Your task to perform on an android device: change the upload size in google photos Image 0: 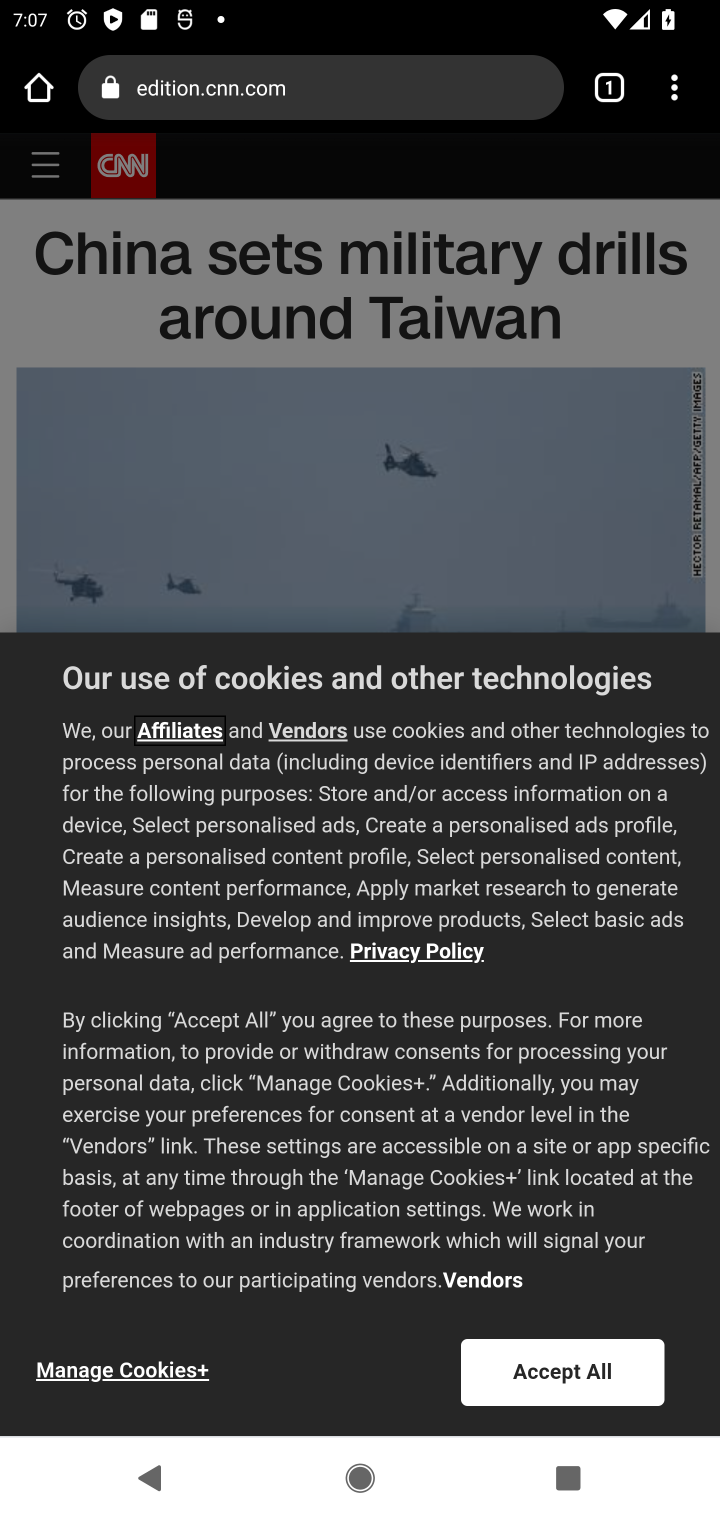
Step 0: press home button
Your task to perform on an android device: change the upload size in google photos Image 1: 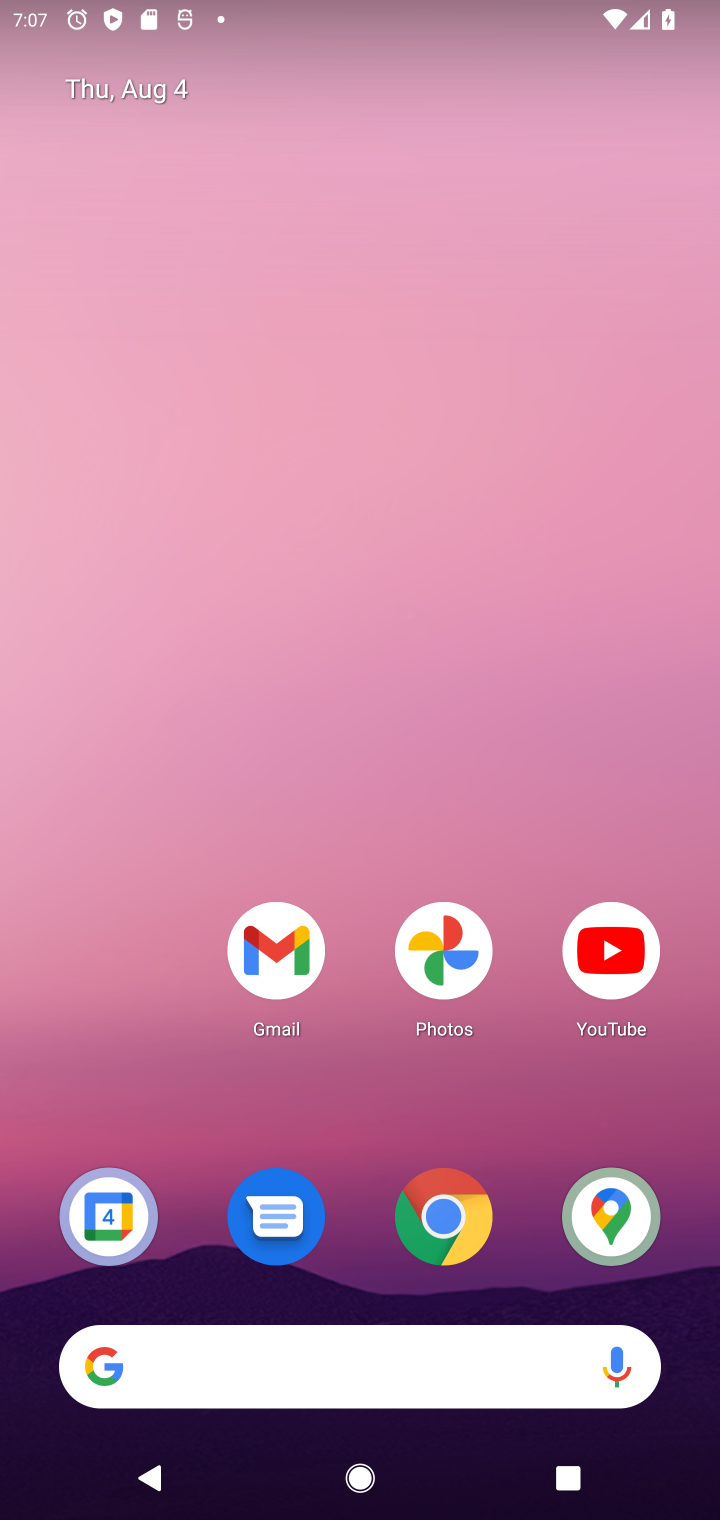
Step 1: click (448, 960)
Your task to perform on an android device: change the upload size in google photos Image 2: 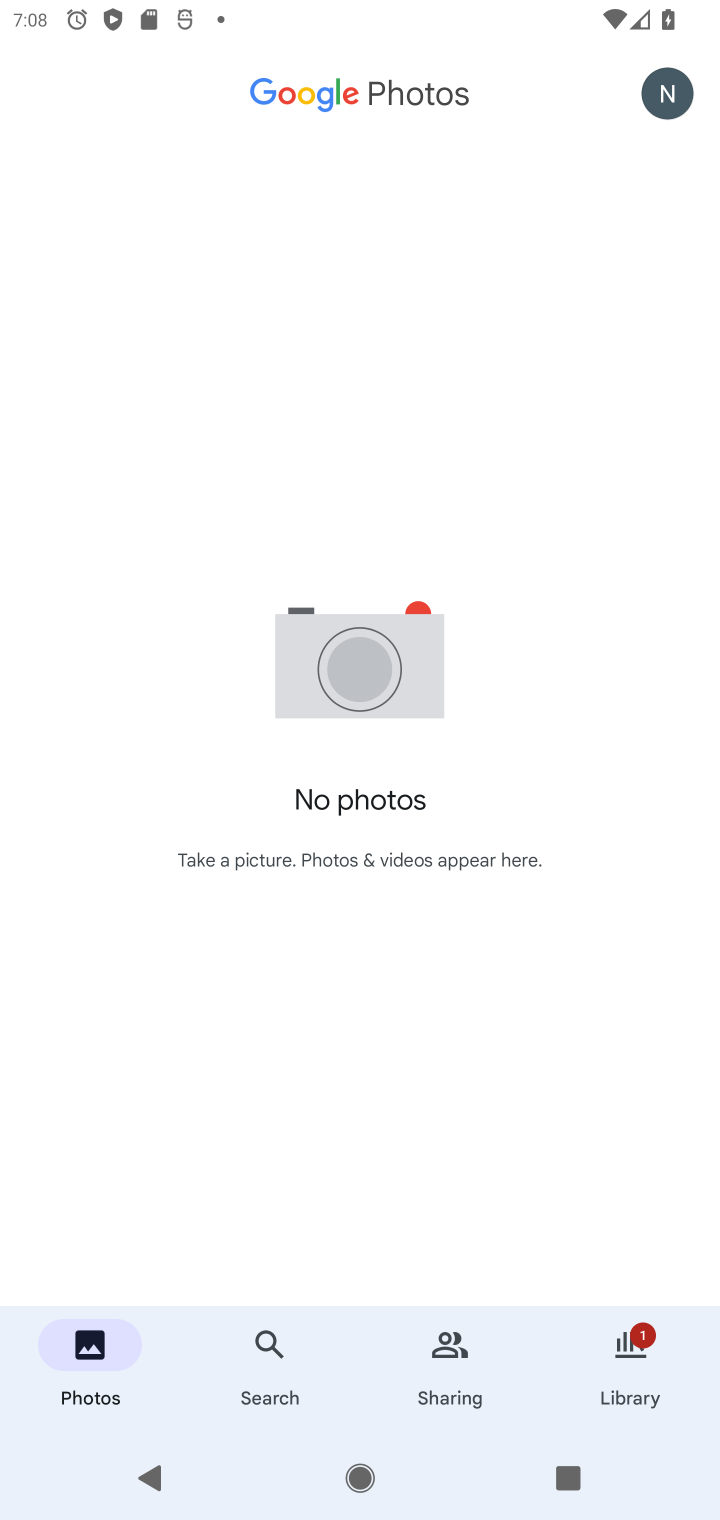
Step 2: click (663, 77)
Your task to perform on an android device: change the upload size in google photos Image 3: 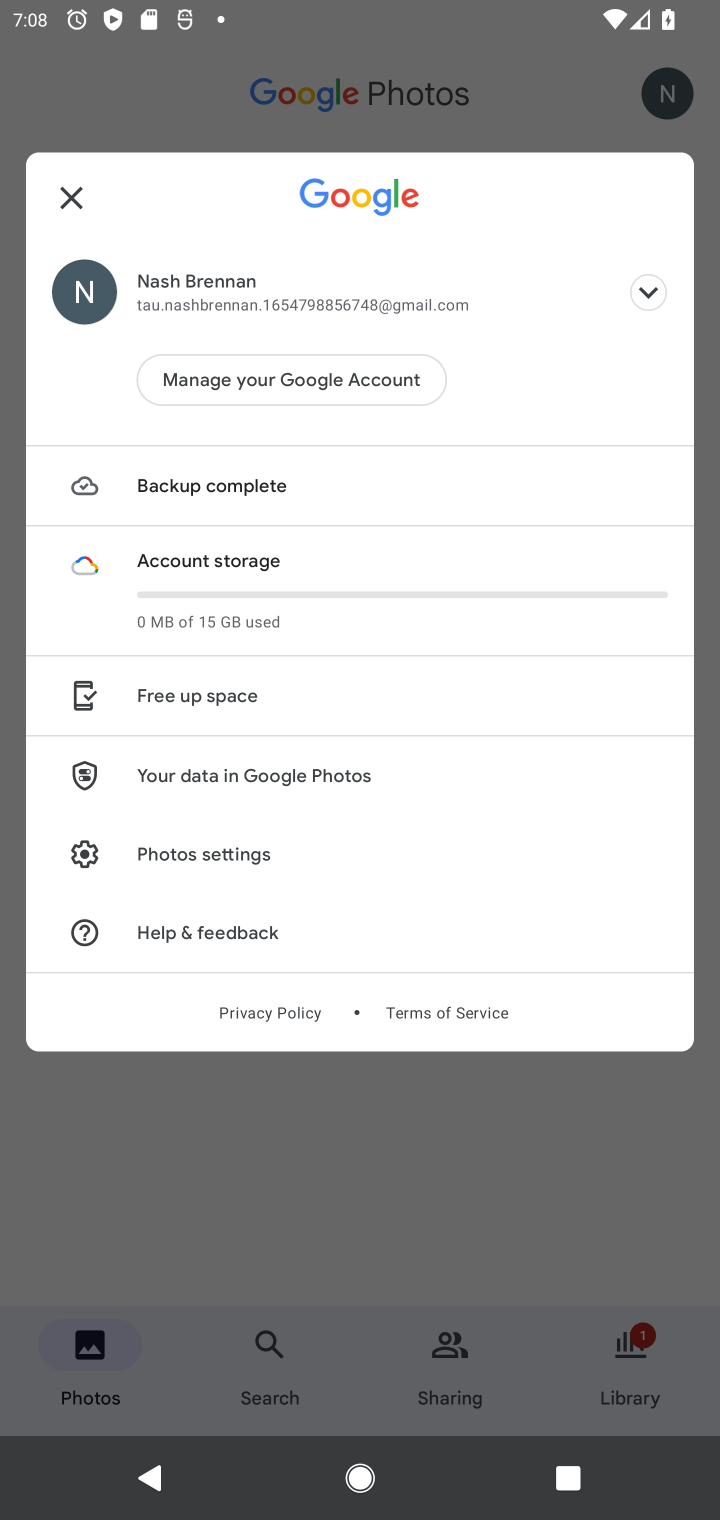
Step 3: click (278, 845)
Your task to perform on an android device: change the upload size in google photos Image 4: 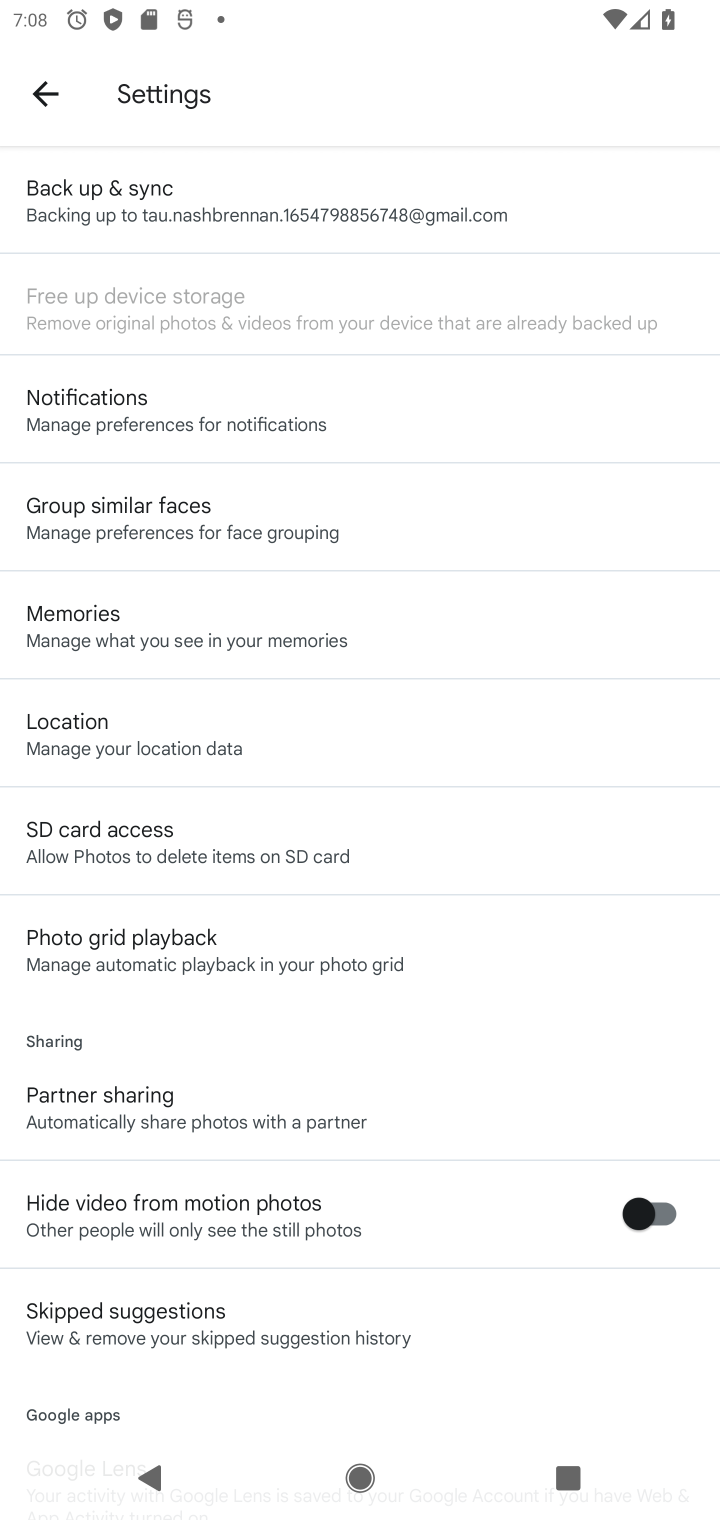
Step 4: click (141, 221)
Your task to perform on an android device: change the upload size in google photos Image 5: 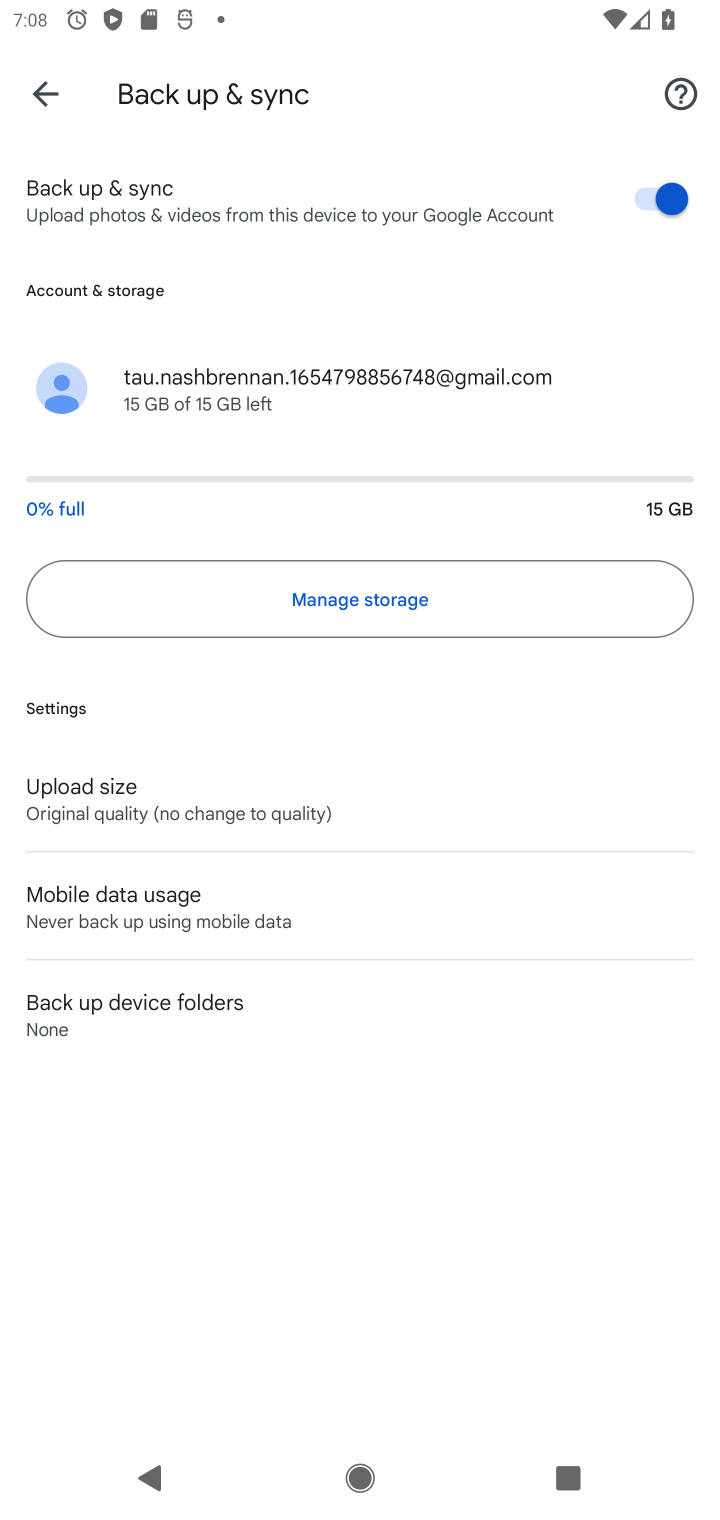
Step 5: click (337, 773)
Your task to perform on an android device: change the upload size in google photos Image 6: 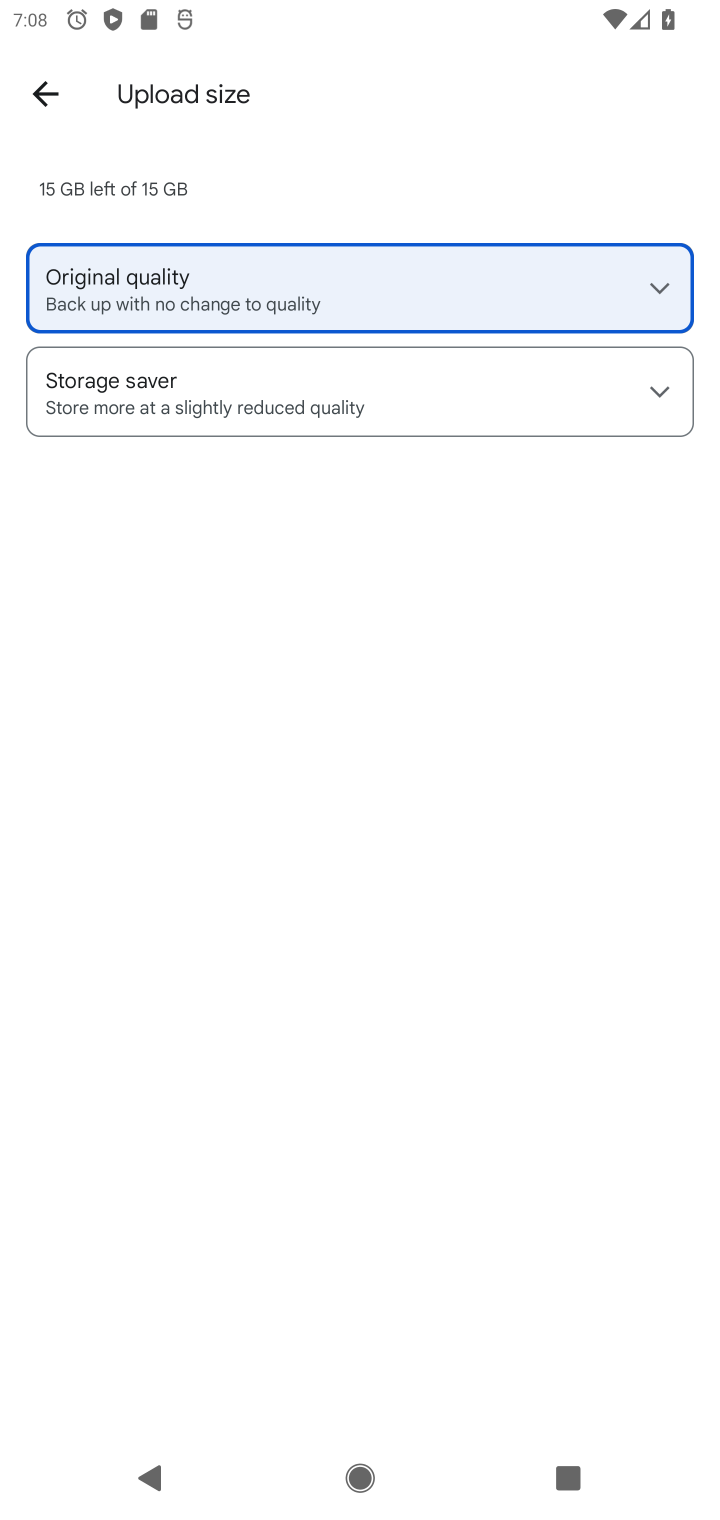
Step 6: click (440, 385)
Your task to perform on an android device: change the upload size in google photos Image 7: 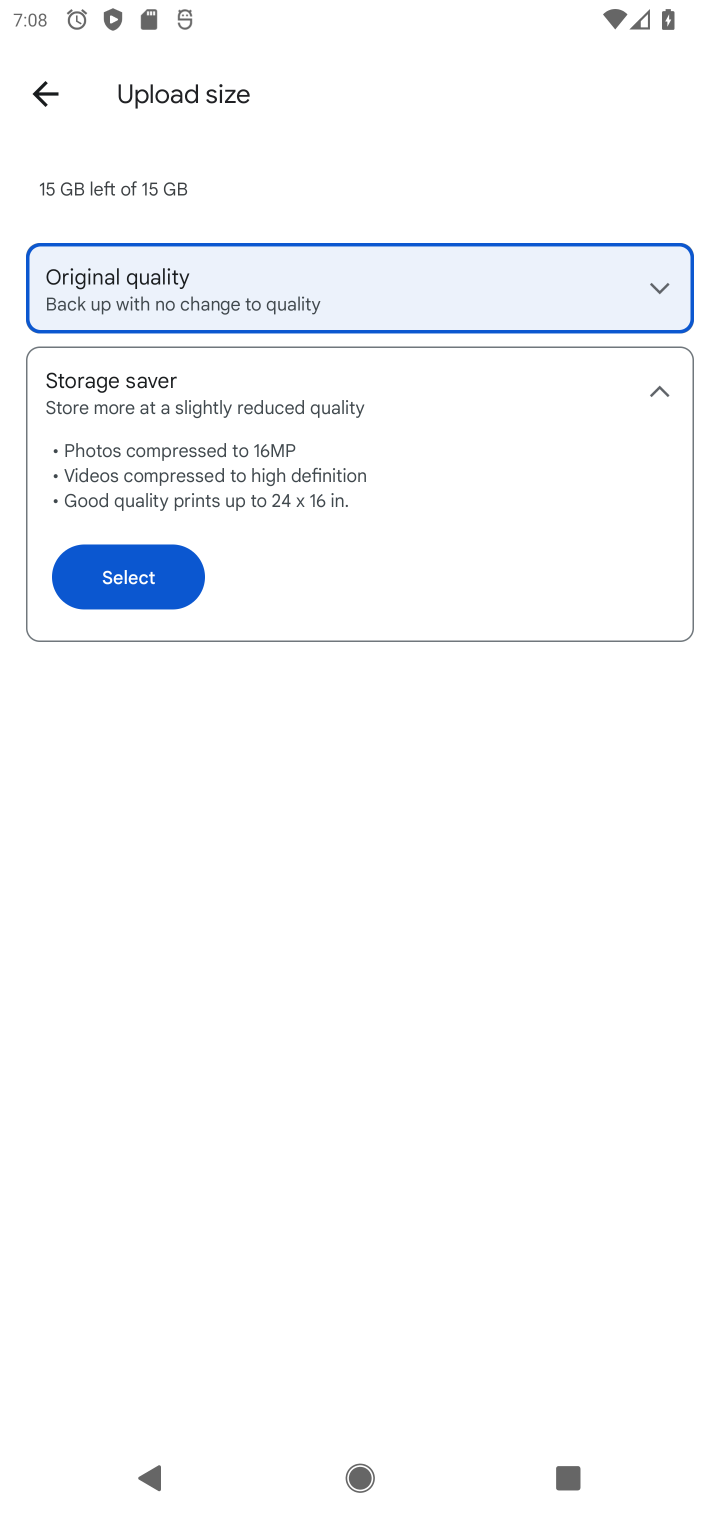
Step 7: click (124, 583)
Your task to perform on an android device: change the upload size in google photos Image 8: 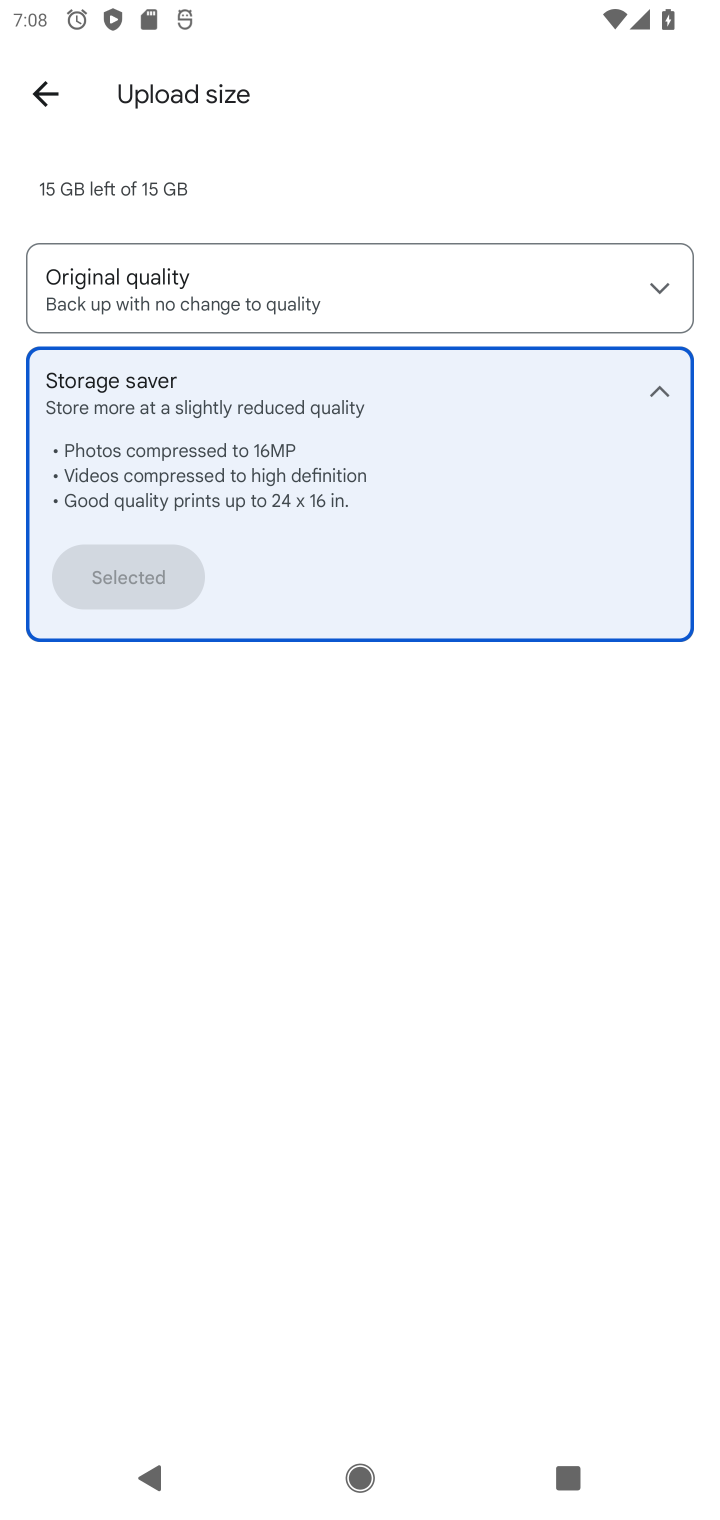
Step 8: task complete